Your task to perform on an android device: add a contact in the contacts app Image 0: 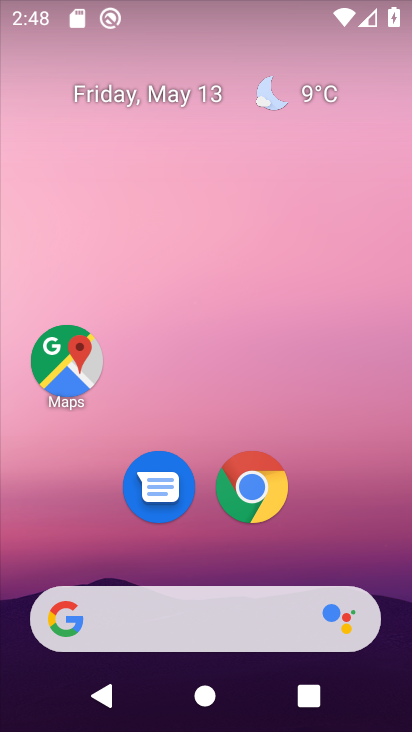
Step 0: drag from (205, 616) to (201, 156)
Your task to perform on an android device: add a contact in the contacts app Image 1: 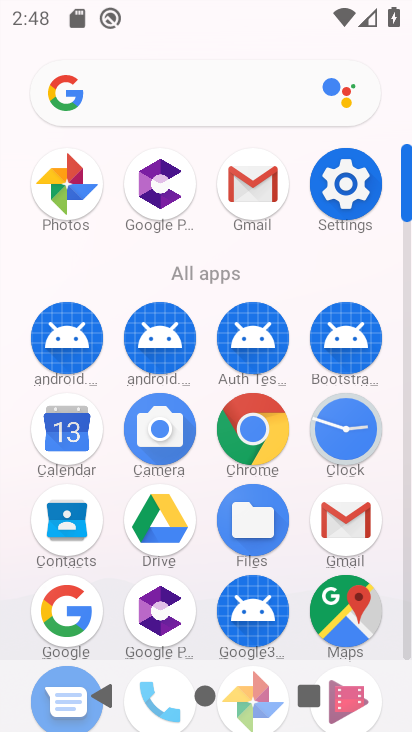
Step 1: drag from (221, 559) to (244, 163)
Your task to perform on an android device: add a contact in the contacts app Image 2: 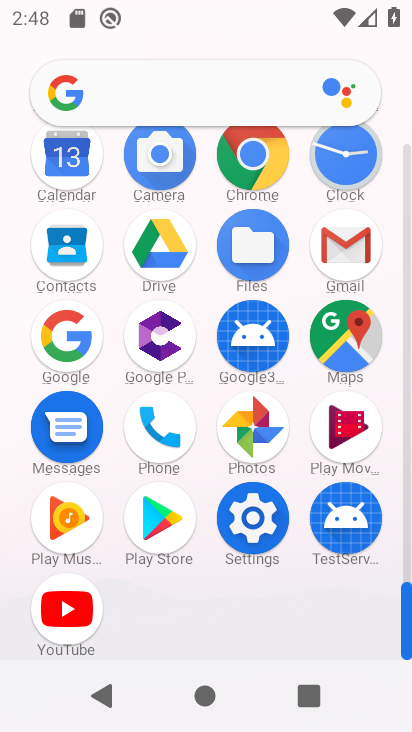
Step 2: drag from (214, 213) to (204, 500)
Your task to perform on an android device: add a contact in the contacts app Image 3: 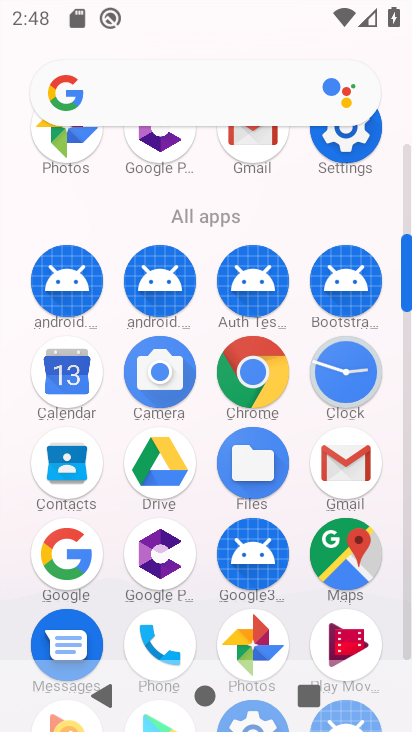
Step 3: click (83, 471)
Your task to perform on an android device: add a contact in the contacts app Image 4: 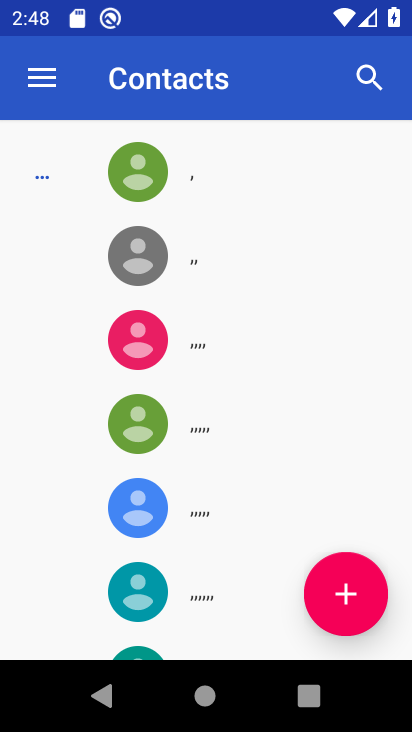
Step 4: click (345, 603)
Your task to perform on an android device: add a contact in the contacts app Image 5: 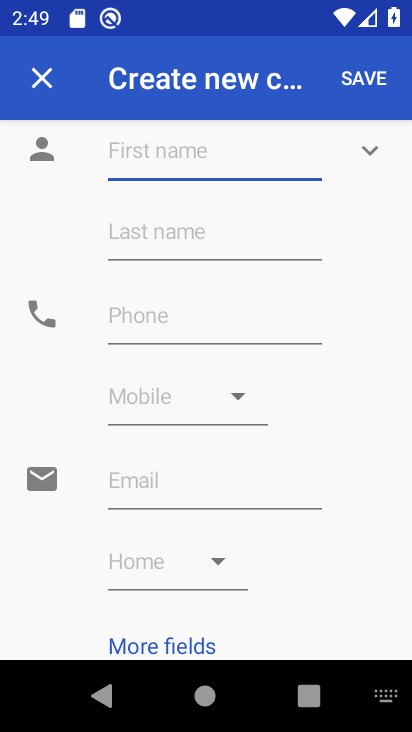
Step 5: type "dfgdg"
Your task to perform on an android device: add a contact in the contacts app Image 6: 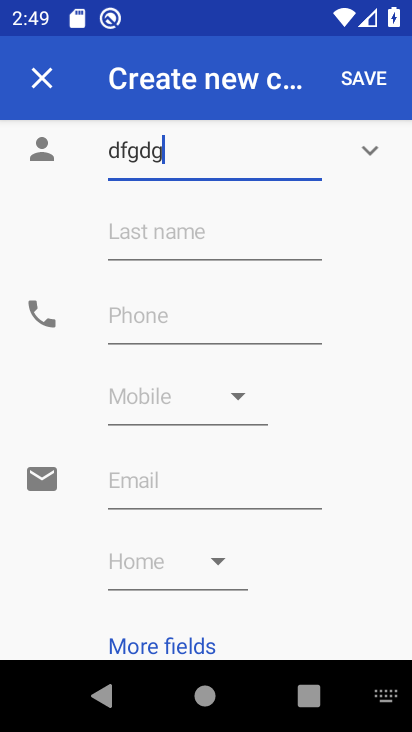
Step 6: click (223, 310)
Your task to perform on an android device: add a contact in the contacts app Image 7: 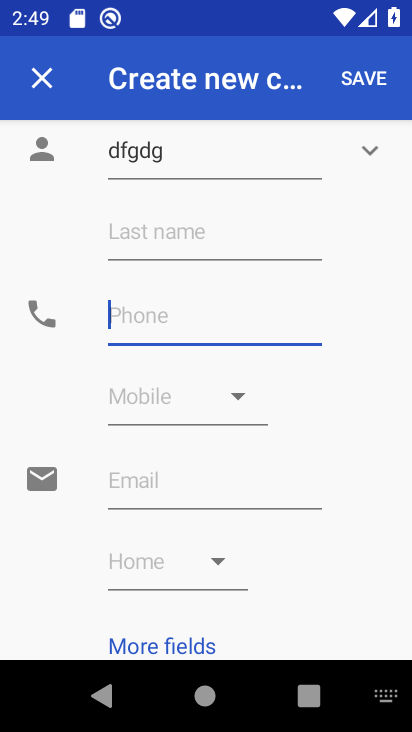
Step 7: type "7567567"
Your task to perform on an android device: add a contact in the contacts app Image 8: 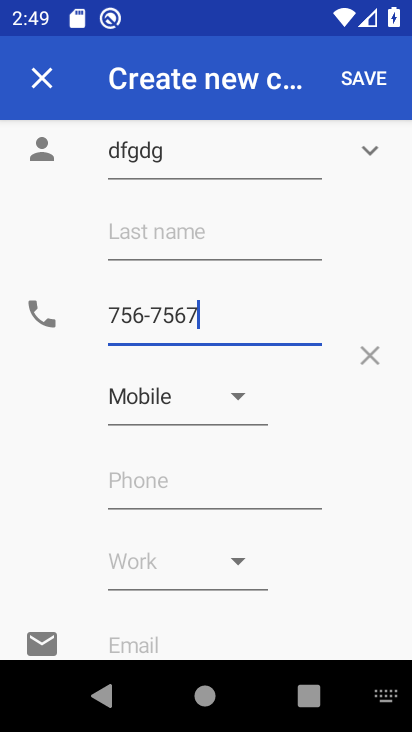
Step 8: click (361, 71)
Your task to perform on an android device: add a contact in the contacts app Image 9: 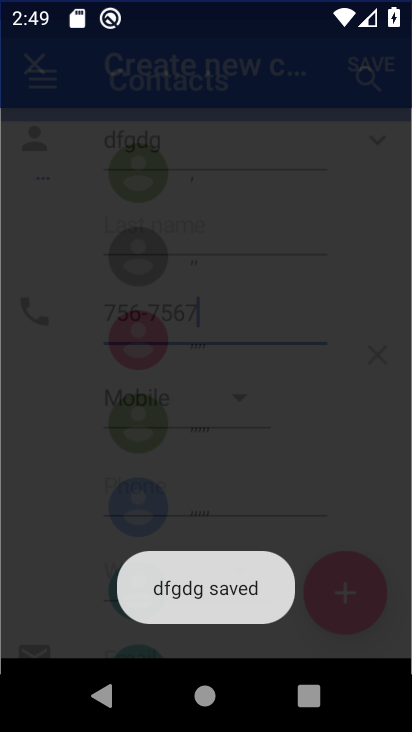
Step 9: task complete